Your task to perform on an android device: Open wifi settings Image 0: 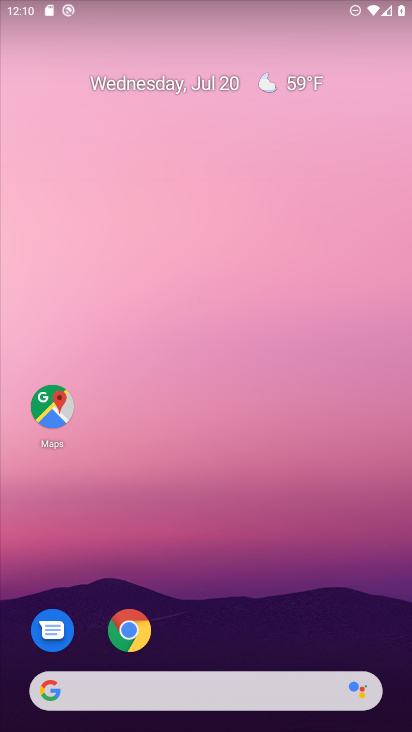
Step 0: drag from (86, 710) to (278, 0)
Your task to perform on an android device: Open wifi settings Image 1: 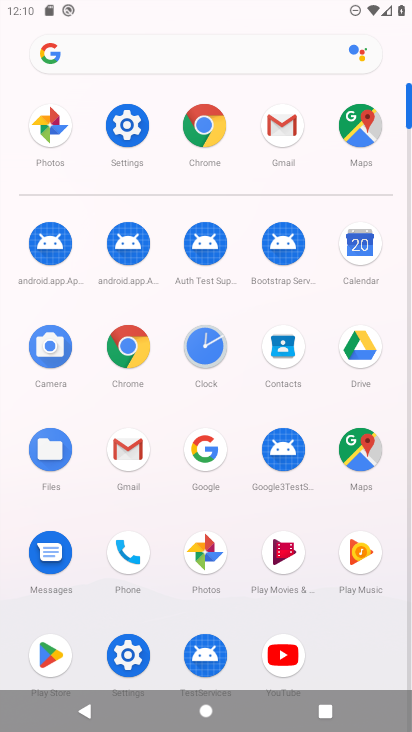
Step 1: click (133, 115)
Your task to perform on an android device: Open wifi settings Image 2: 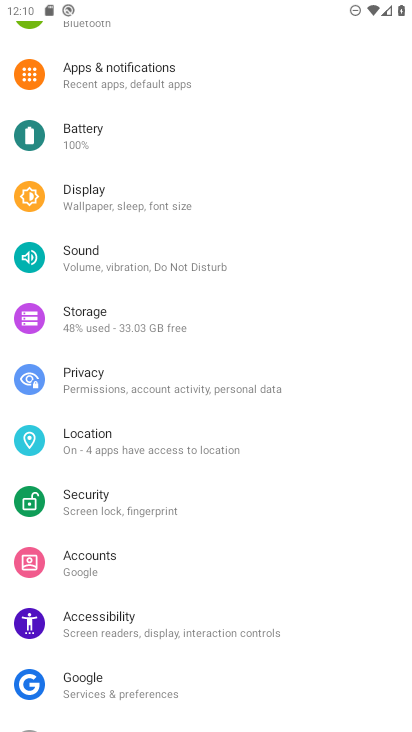
Step 2: drag from (152, 96) to (193, 508)
Your task to perform on an android device: Open wifi settings Image 3: 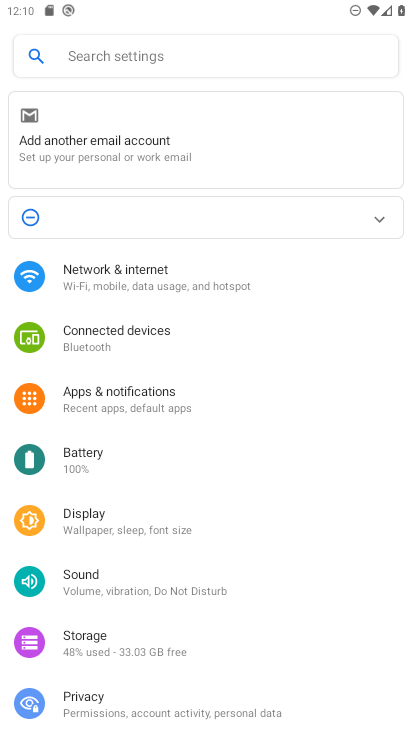
Step 3: click (144, 267)
Your task to perform on an android device: Open wifi settings Image 4: 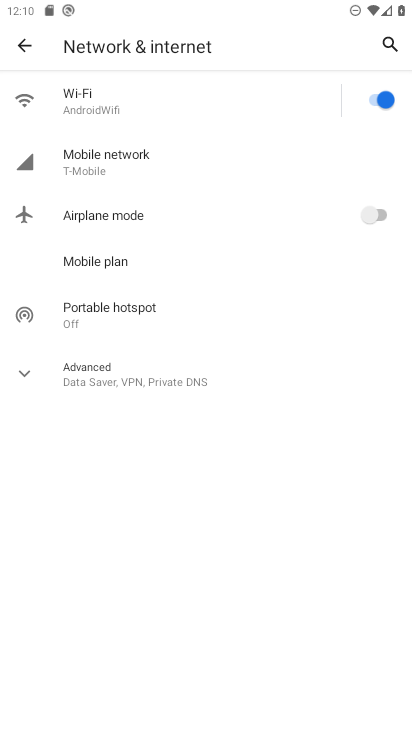
Step 4: click (111, 93)
Your task to perform on an android device: Open wifi settings Image 5: 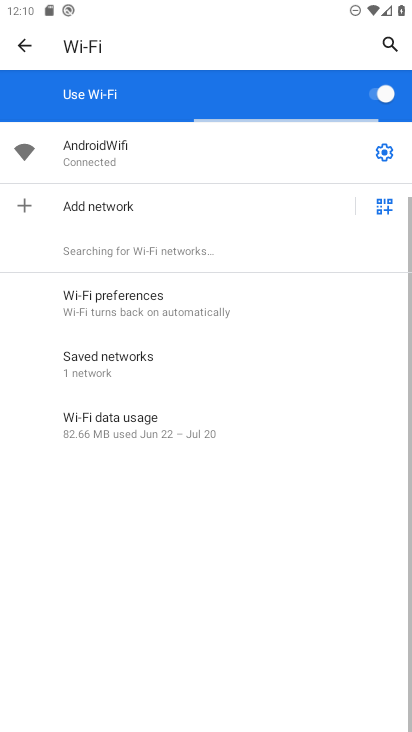
Step 5: task complete